Your task to perform on an android device: What's on my calendar tomorrow? Image 0: 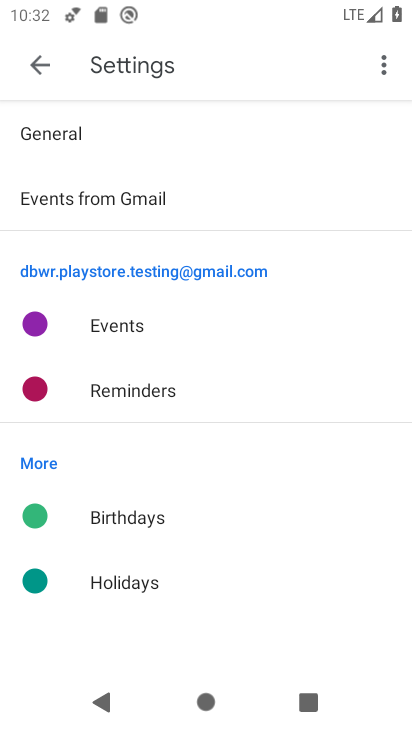
Step 0: press home button
Your task to perform on an android device: What's on my calendar tomorrow? Image 1: 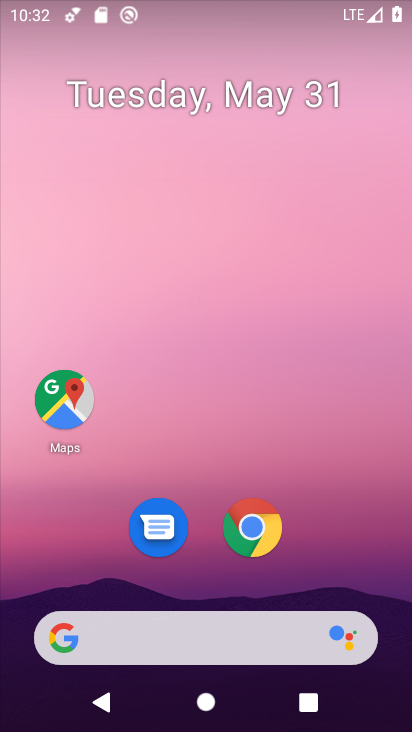
Step 1: drag from (356, 564) to (317, 12)
Your task to perform on an android device: What's on my calendar tomorrow? Image 2: 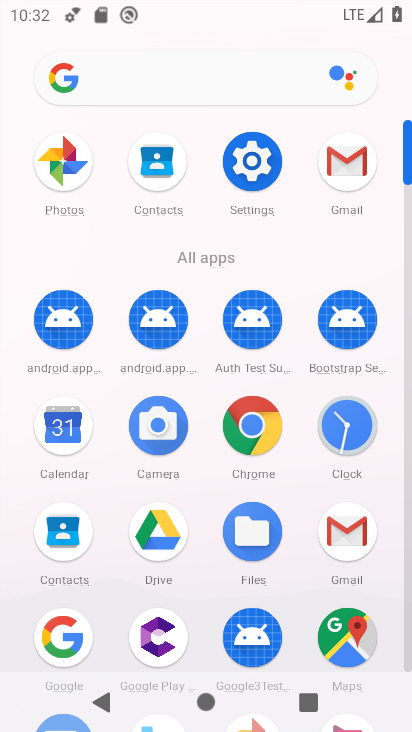
Step 2: click (65, 429)
Your task to perform on an android device: What's on my calendar tomorrow? Image 3: 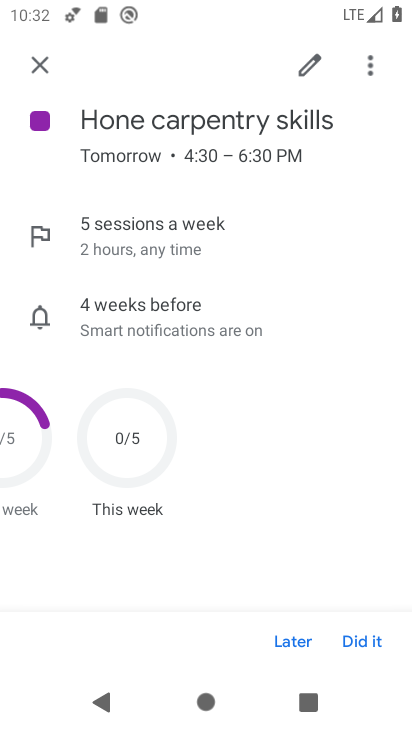
Step 3: click (39, 61)
Your task to perform on an android device: What's on my calendar tomorrow? Image 4: 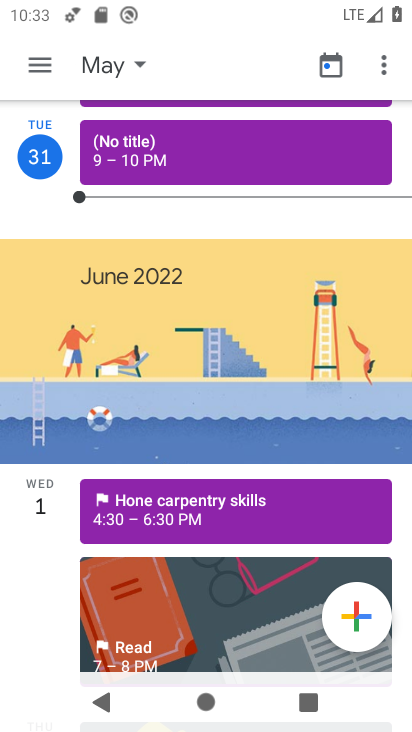
Step 4: click (39, 61)
Your task to perform on an android device: What's on my calendar tomorrow? Image 5: 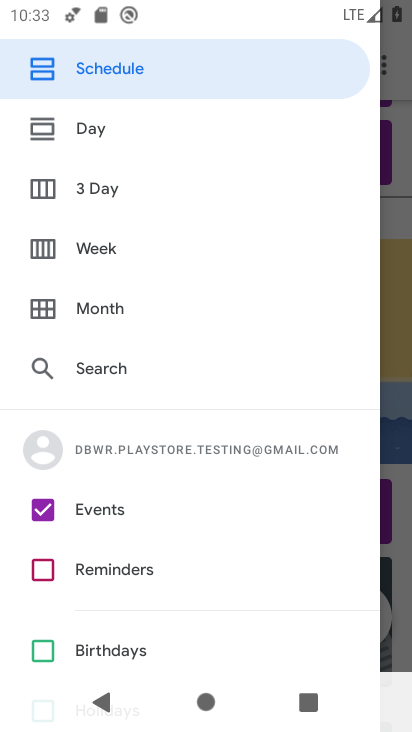
Step 5: click (73, 137)
Your task to perform on an android device: What's on my calendar tomorrow? Image 6: 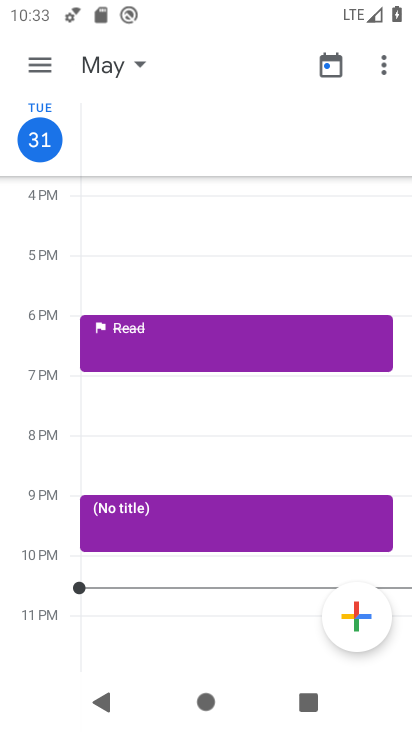
Step 6: click (37, 65)
Your task to perform on an android device: What's on my calendar tomorrow? Image 7: 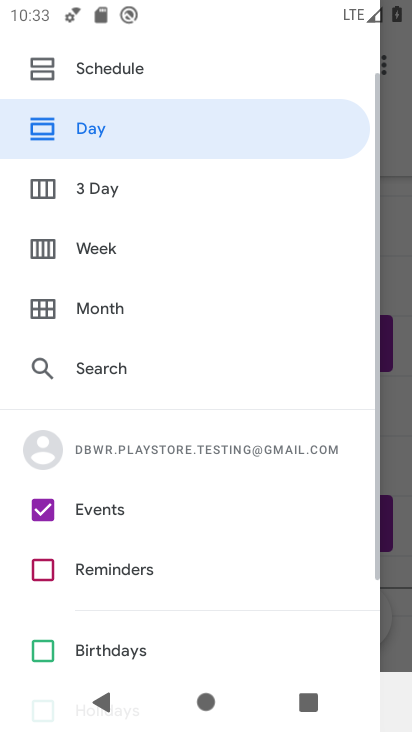
Step 7: click (37, 578)
Your task to perform on an android device: What's on my calendar tomorrow? Image 8: 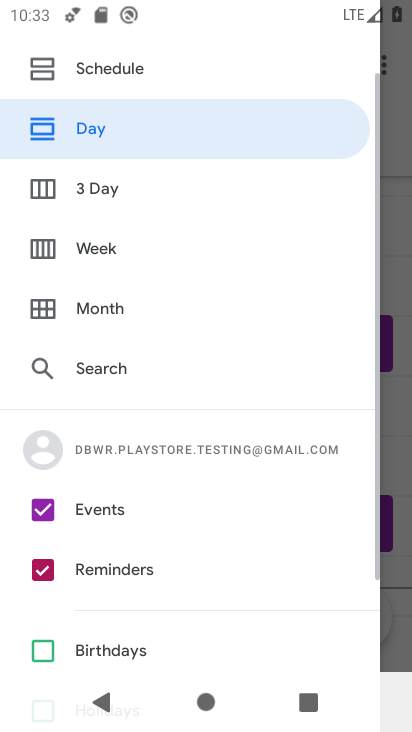
Step 8: click (55, 646)
Your task to perform on an android device: What's on my calendar tomorrow? Image 9: 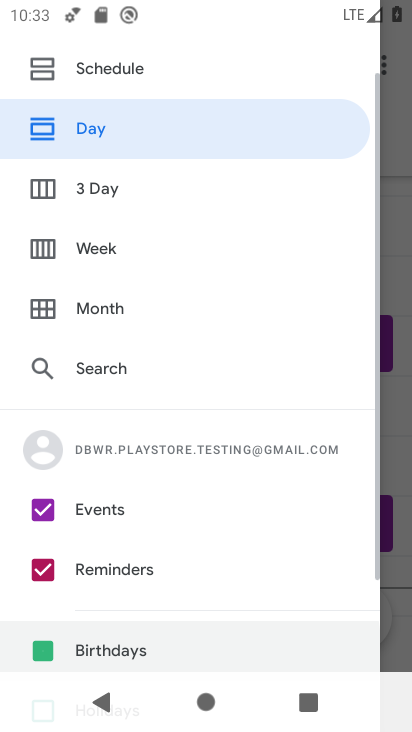
Step 9: drag from (153, 601) to (154, 245)
Your task to perform on an android device: What's on my calendar tomorrow? Image 10: 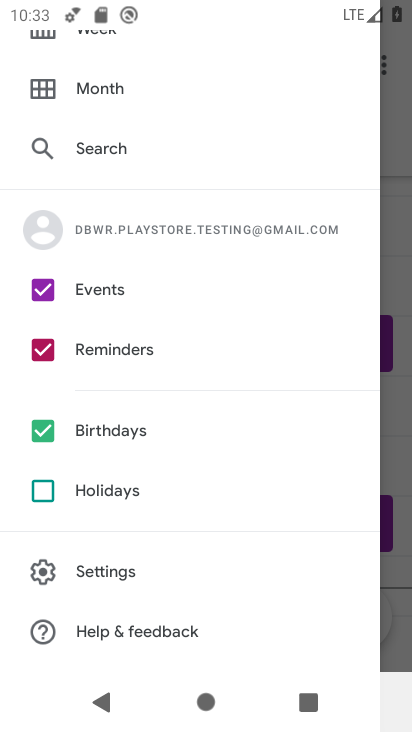
Step 10: click (46, 484)
Your task to perform on an android device: What's on my calendar tomorrow? Image 11: 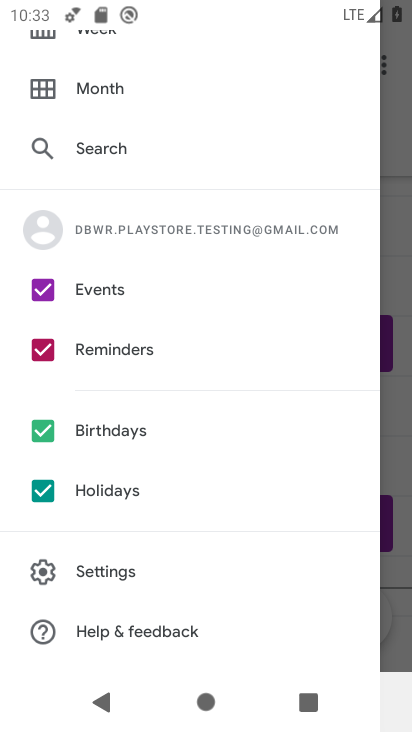
Step 11: drag from (234, 134) to (201, 510)
Your task to perform on an android device: What's on my calendar tomorrow? Image 12: 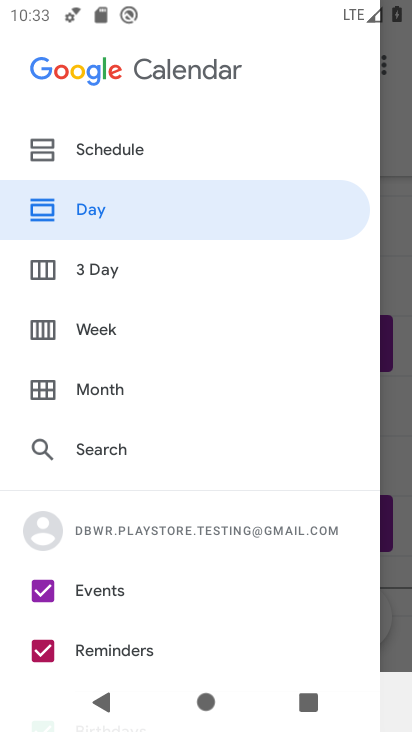
Step 12: click (35, 216)
Your task to perform on an android device: What's on my calendar tomorrow? Image 13: 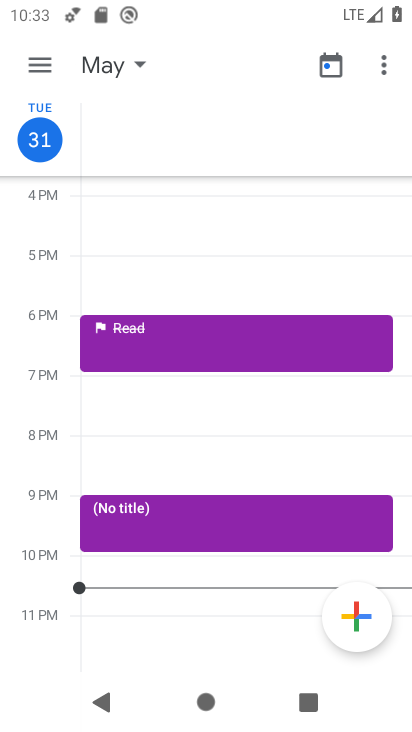
Step 13: click (139, 61)
Your task to perform on an android device: What's on my calendar tomorrow? Image 14: 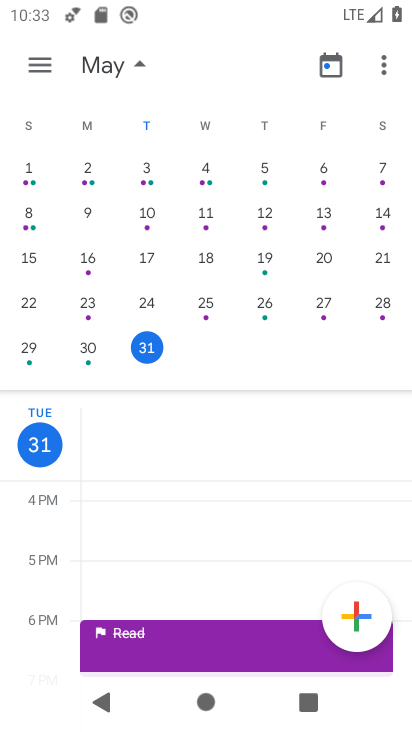
Step 14: drag from (253, 344) to (0, 275)
Your task to perform on an android device: What's on my calendar tomorrow? Image 15: 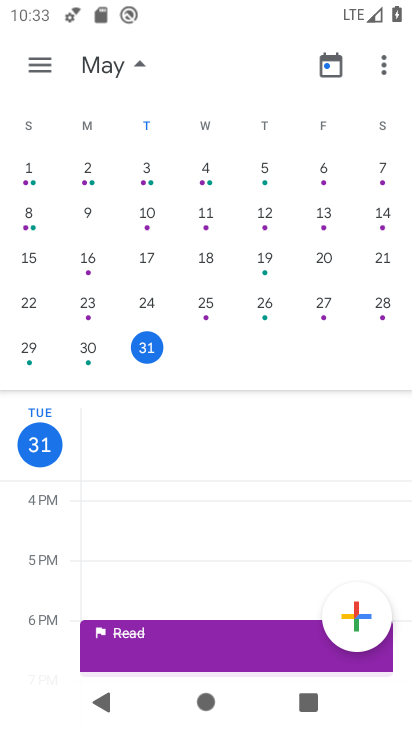
Step 15: drag from (311, 203) to (23, 204)
Your task to perform on an android device: What's on my calendar tomorrow? Image 16: 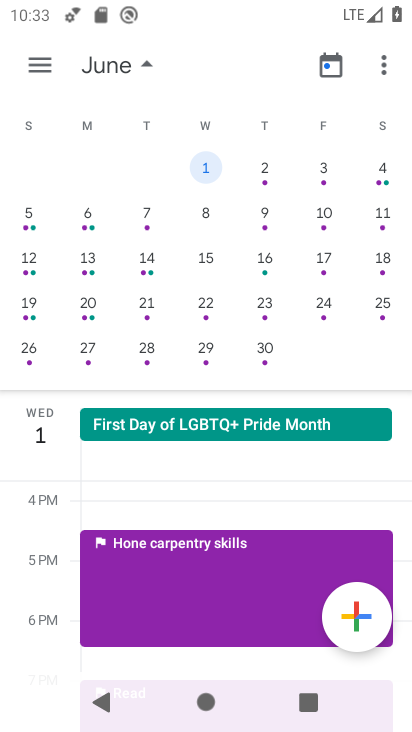
Step 16: click (204, 163)
Your task to perform on an android device: What's on my calendar tomorrow? Image 17: 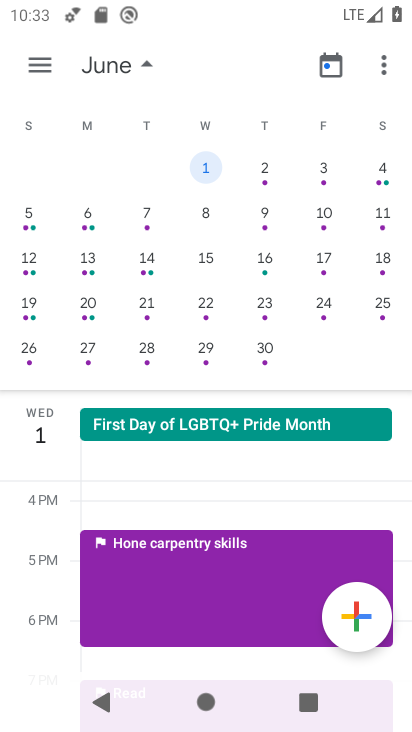
Step 17: task complete